Your task to perform on an android device: change timer sound Image 0: 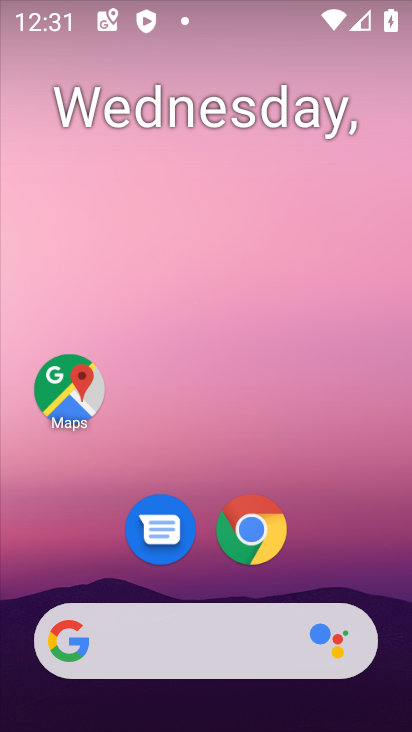
Step 0: drag from (399, 609) to (339, 122)
Your task to perform on an android device: change timer sound Image 1: 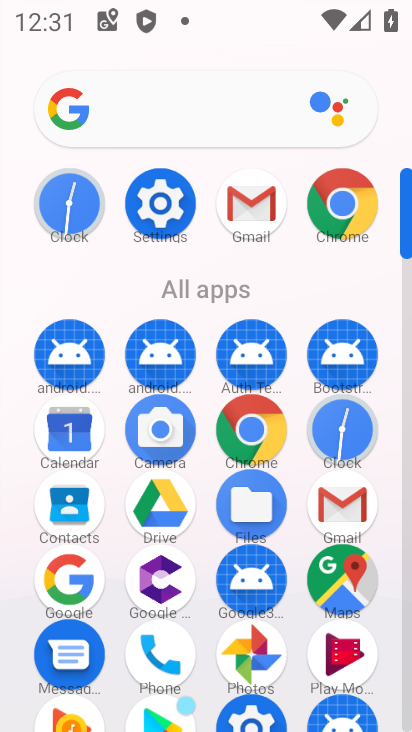
Step 1: click (340, 437)
Your task to perform on an android device: change timer sound Image 2: 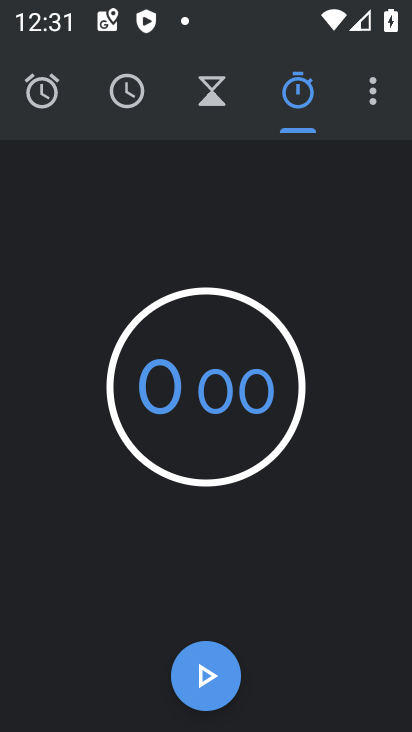
Step 2: click (375, 102)
Your task to perform on an android device: change timer sound Image 3: 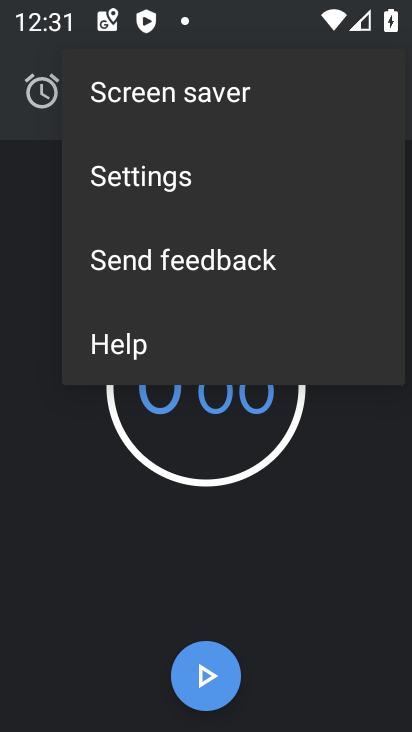
Step 3: click (147, 175)
Your task to perform on an android device: change timer sound Image 4: 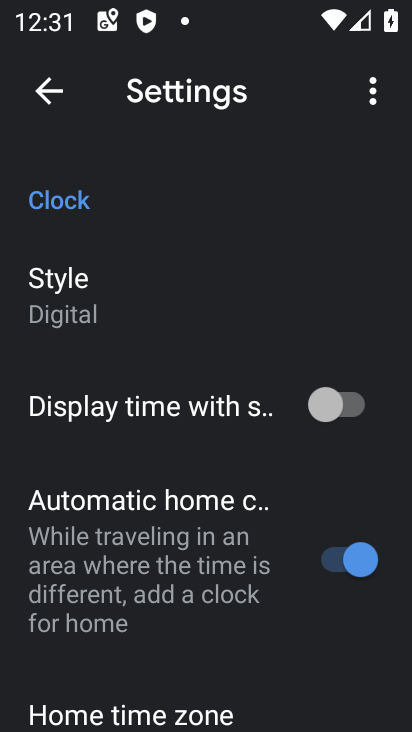
Step 4: drag from (269, 647) to (244, 189)
Your task to perform on an android device: change timer sound Image 5: 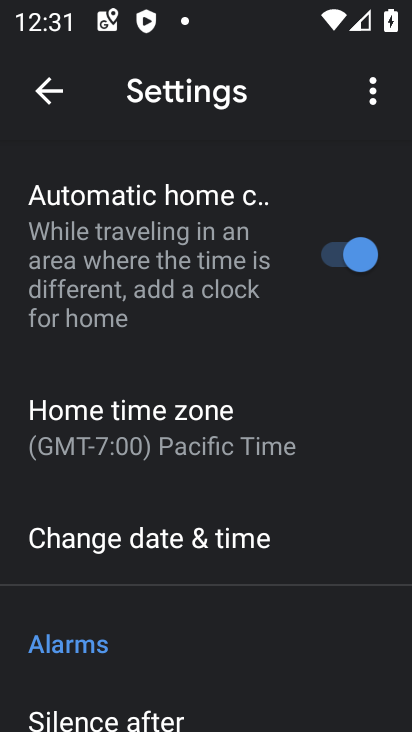
Step 5: drag from (268, 602) to (230, 98)
Your task to perform on an android device: change timer sound Image 6: 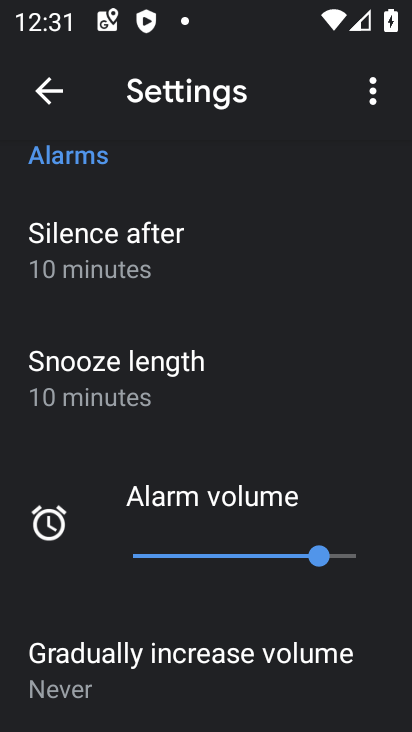
Step 6: drag from (261, 619) to (202, 189)
Your task to perform on an android device: change timer sound Image 7: 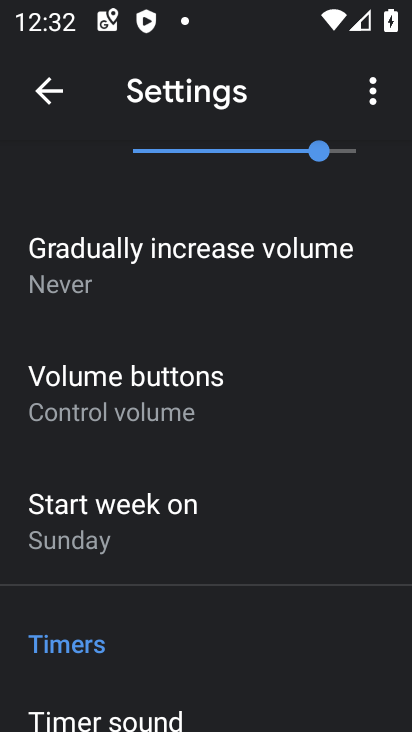
Step 7: drag from (248, 658) to (177, 226)
Your task to perform on an android device: change timer sound Image 8: 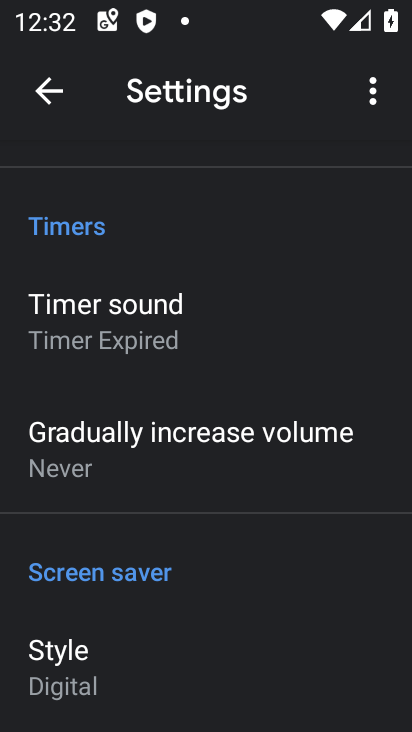
Step 8: click (111, 337)
Your task to perform on an android device: change timer sound Image 9: 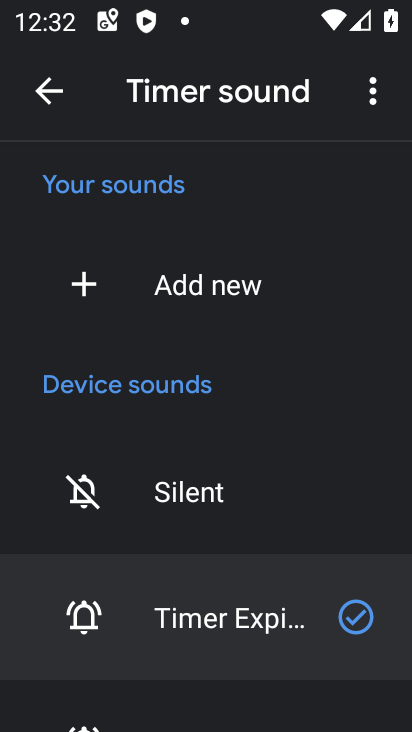
Step 9: drag from (247, 555) to (219, 129)
Your task to perform on an android device: change timer sound Image 10: 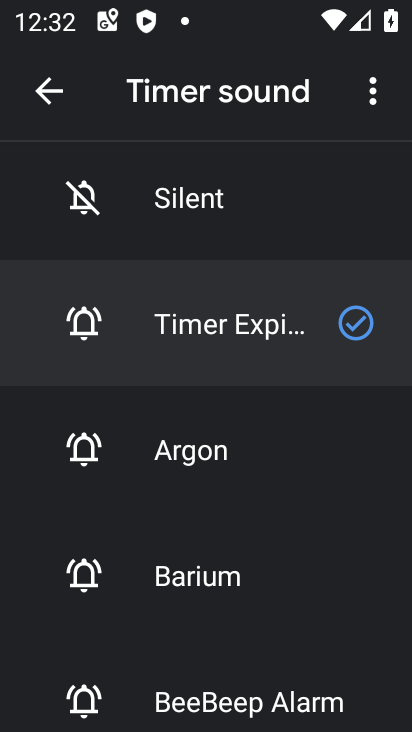
Step 10: drag from (275, 594) to (256, 166)
Your task to perform on an android device: change timer sound Image 11: 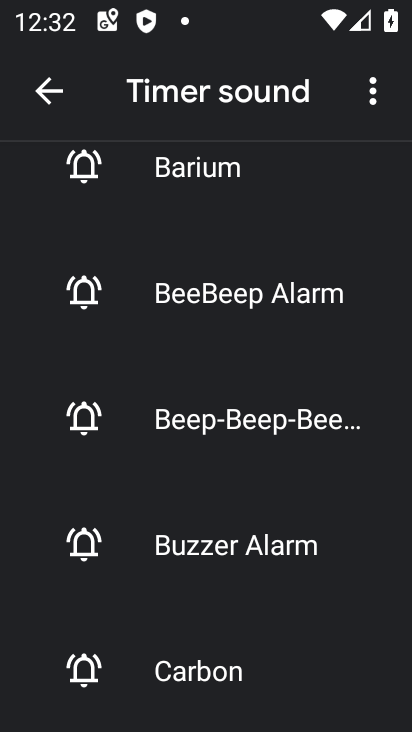
Step 11: click (192, 298)
Your task to perform on an android device: change timer sound Image 12: 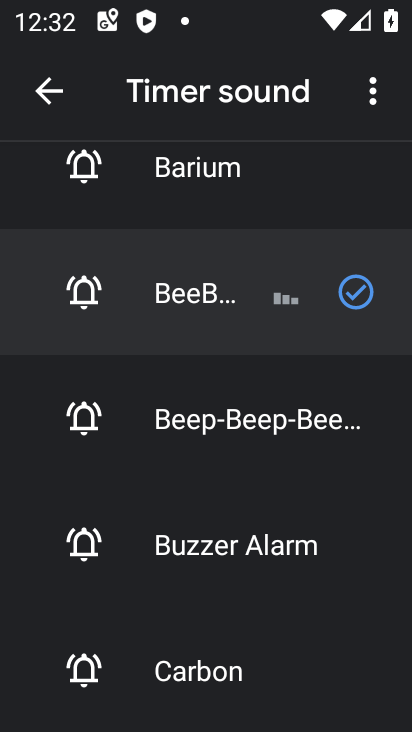
Step 12: task complete